Your task to perform on an android device: Open Google Chrome and open the bookmarks view Image 0: 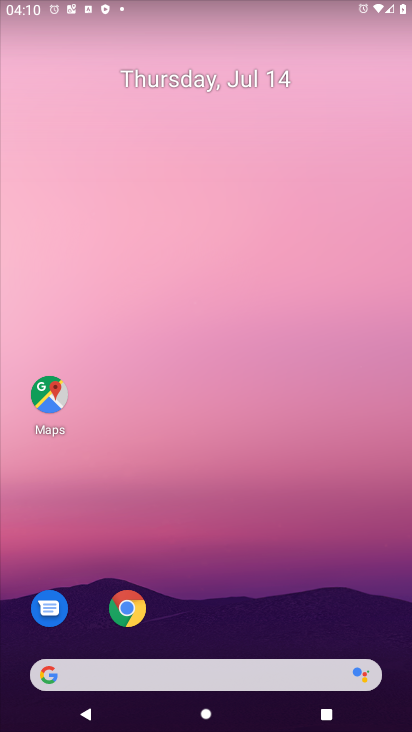
Step 0: click (126, 605)
Your task to perform on an android device: Open Google Chrome and open the bookmarks view Image 1: 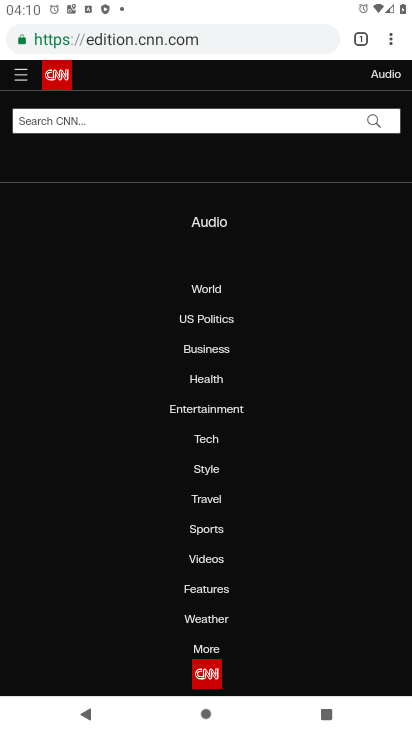
Step 1: click (390, 41)
Your task to perform on an android device: Open Google Chrome and open the bookmarks view Image 2: 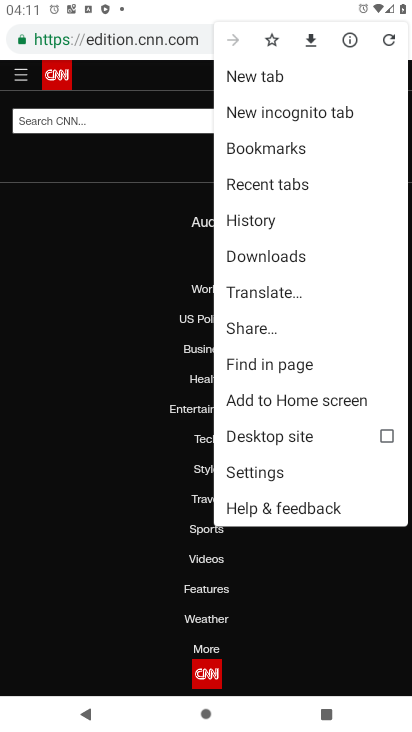
Step 2: click (242, 148)
Your task to perform on an android device: Open Google Chrome and open the bookmarks view Image 3: 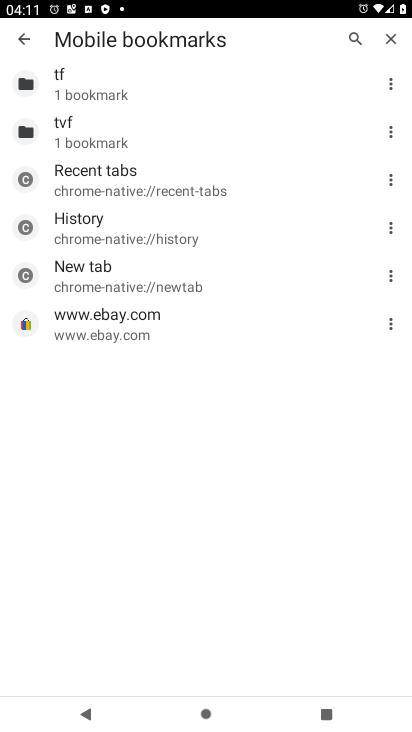
Step 3: task complete